Your task to perform on an android device: toggle priority inbox in the gmail app Image 0: 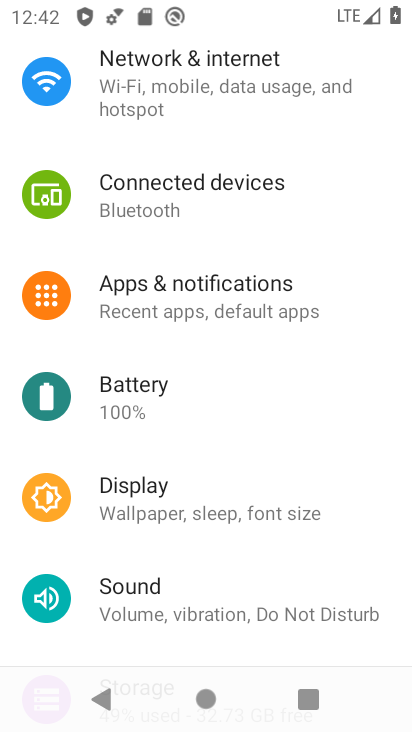
Step 0: press home button
Your task to perform on an android device: toggle priority inbox in the gmail app Image 1: 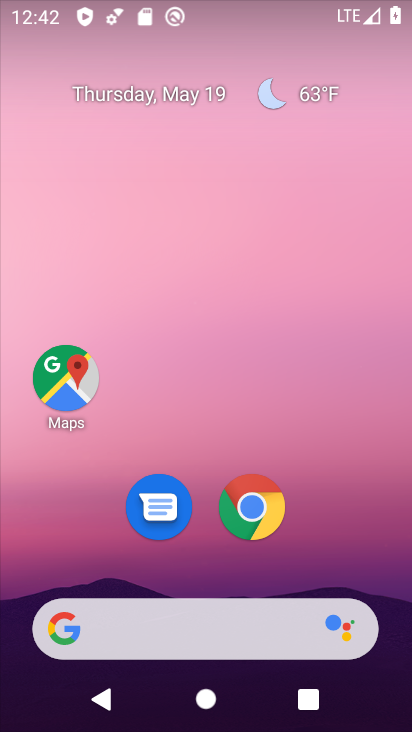
Step 1: drag from (193, 578) to (237, 215)
Your task to perform on an android device: toggle priority inbox in the gmail app Image 2: 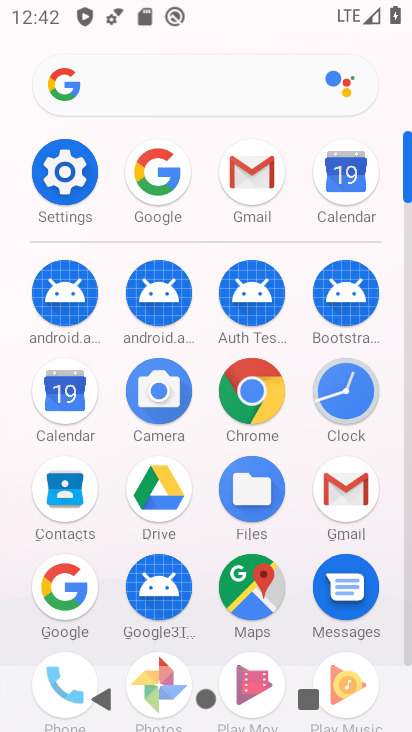
Step 2: click (260, 180)
Your task to perform on an android device: toggle priority inbox in the gmail app Image 3: 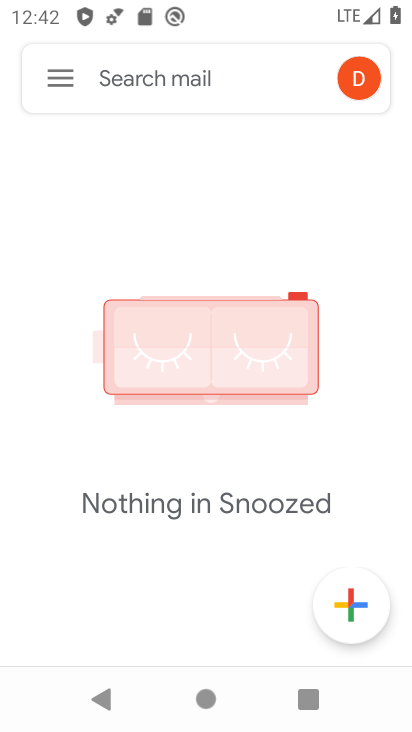
Step 3: click (69, 79)
Your task to perform on an android device: toggle priority inbox in the gmail app Image 4: 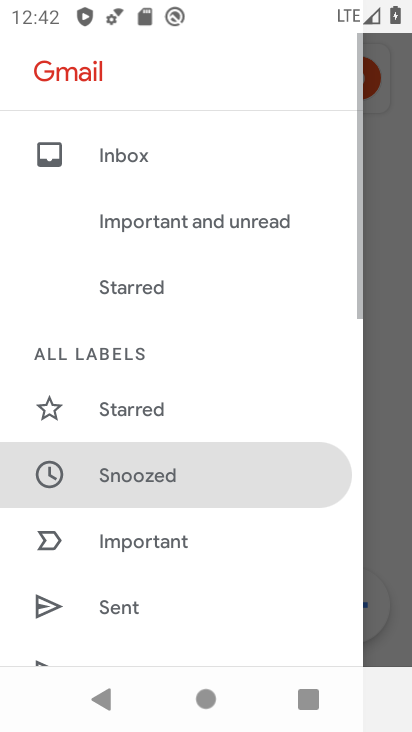
Step 4: drag from (113, 622) to (168, 231)
Your task to perform on an android device: toggle priority inbox in the gmail app Image 5: 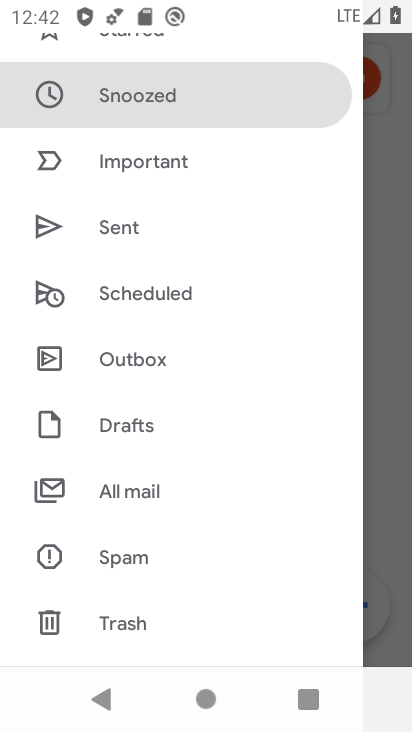
Step 5: drag from (108, 636) to (158, 308)
Your task to perform on an android device: toggle priority inbox in the gmail app Image 6: 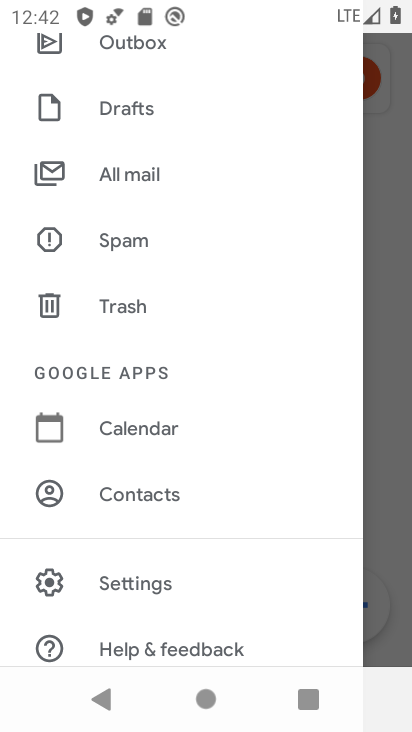
Step 6: click (150, 587)
Your task to perform on an android device: toggle priority inbox in the gmail app Image 7: 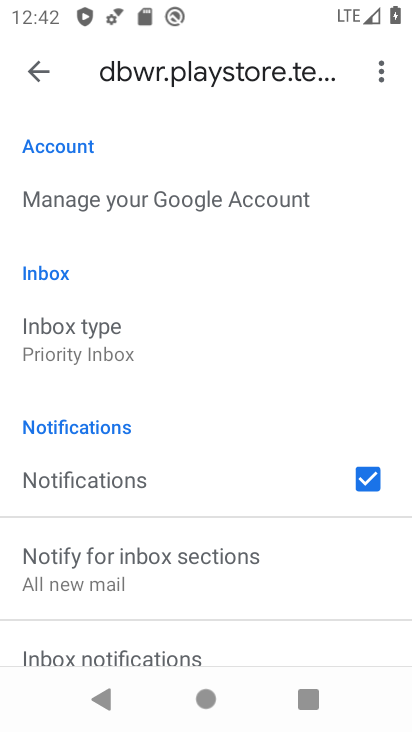
Step 7: click (84, 356)
Your task to perform on an android device: toggle priority inbox in the gmail app Image 8: 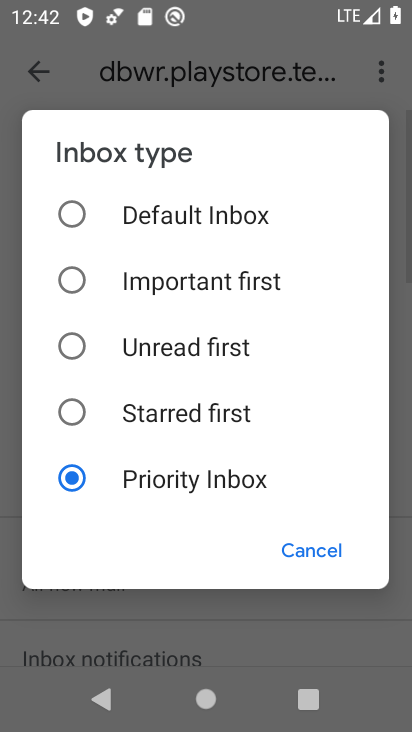
Step 8: click (96, 344)
Your task to perform on an android device: toggle priority inbox in the gmail app Image 9: 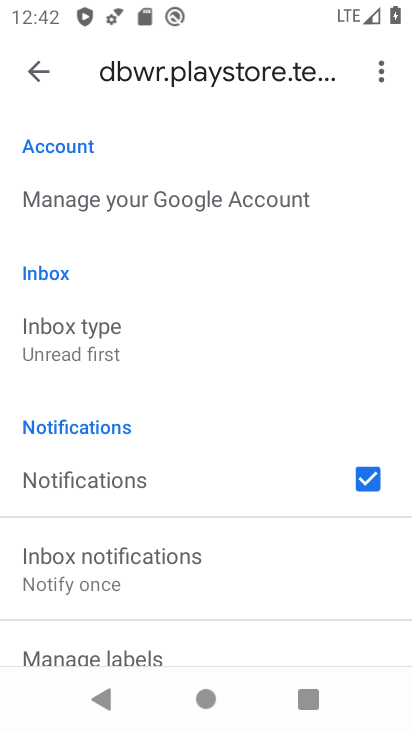
Step 9: task complete